Your task to perform on an android device: change alarm snooze length Image 0: 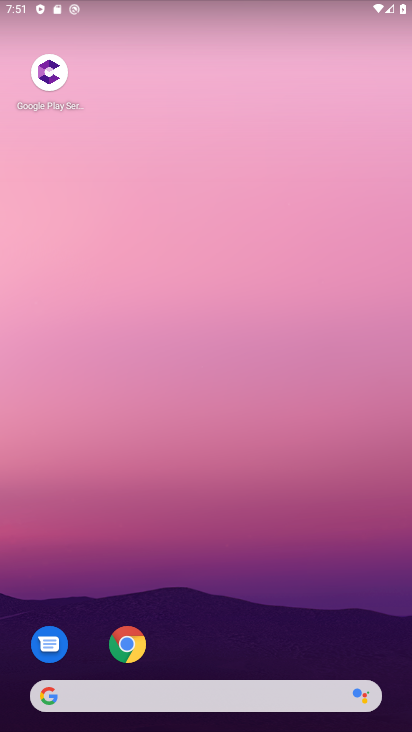
Step 0: drag from (316, 550) to (274, 85)
Your task to perform on an android device: change alarm snooze length Image 1: 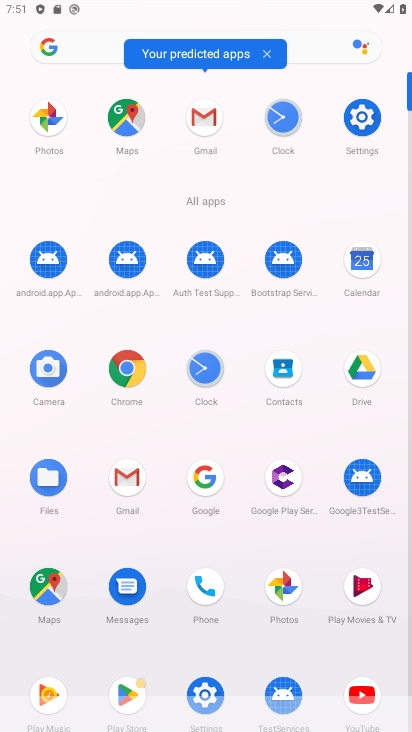
Step 1: click (290, 122)
Your task to perform on an android device: change alarm snooze length Image 2: 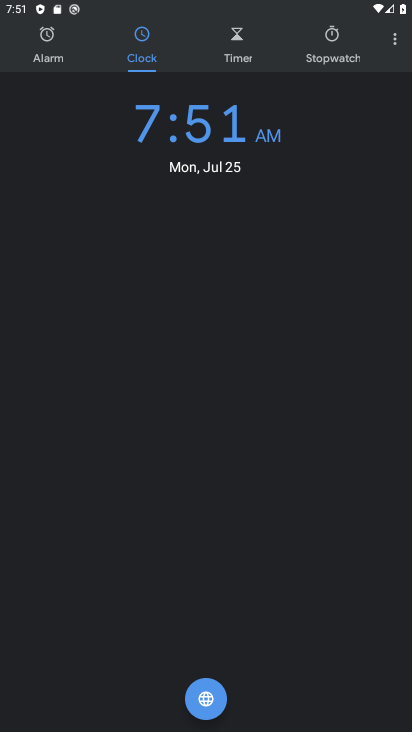
Step 2: click (393, 42)
Your task to perform on an android device: change alarm snooze length Image 3: 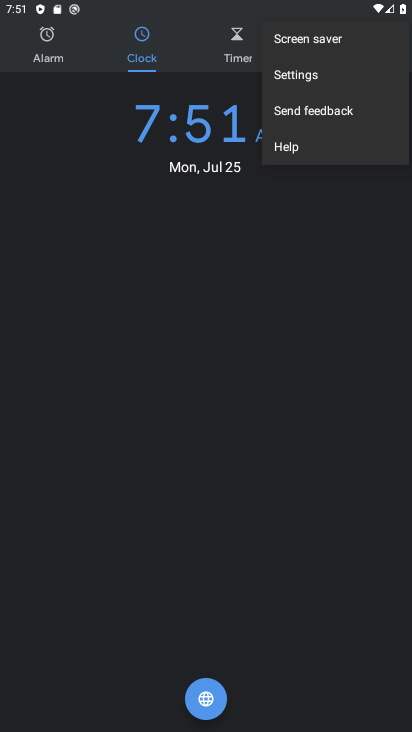
Step 3: click (313, 80)
Your task to perform on an android device: change alarm snooze length Image 4: 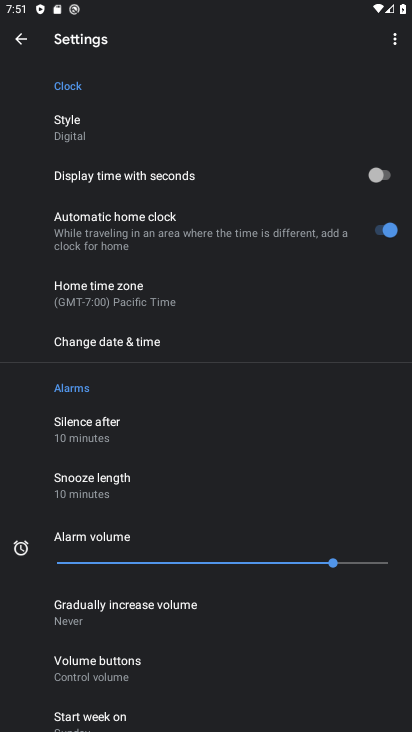
Step 4: click (103, 479)
Your task to perform on an android device: change alarm snooze length Image 5: 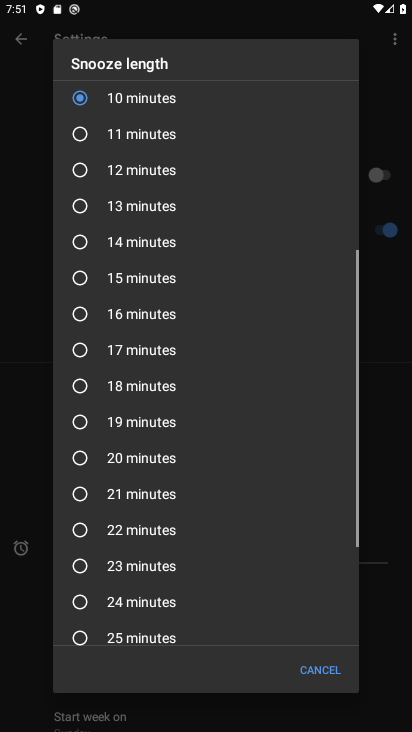
Step 5: click (103, 501)
Your task to perform on an android device: change alarm snooze length Image 6: 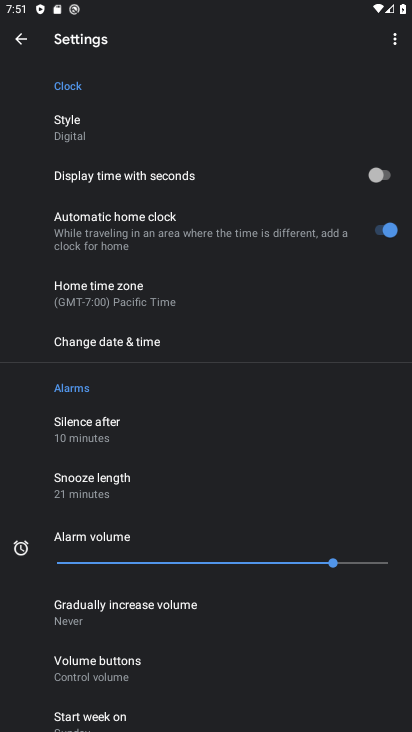
Step 6: task complete